Your task to perform on an android device: Go to settings Image 0: 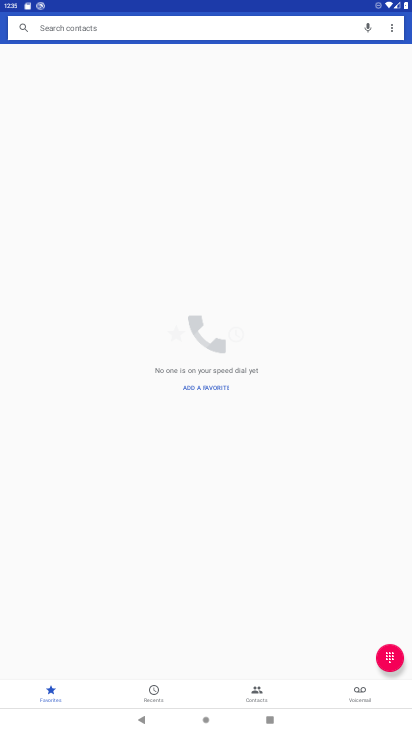
Step 0: press home button
Your task to perform on an android device: Go to settings Image 1: 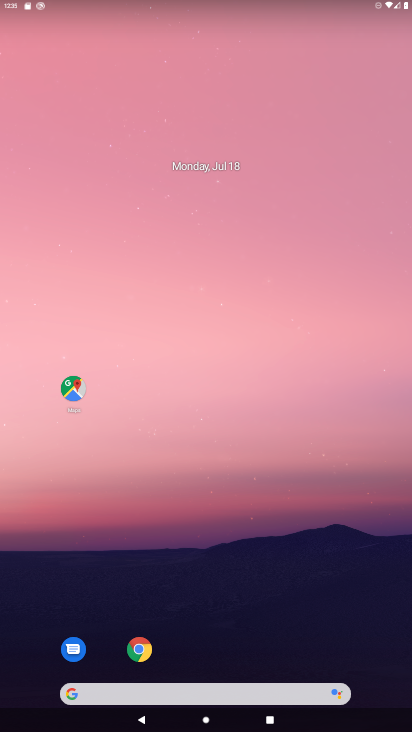
Step 1: drag from (206, 671) to (251, 346)
Your task to perform on an android device: Go to settings Image 2: 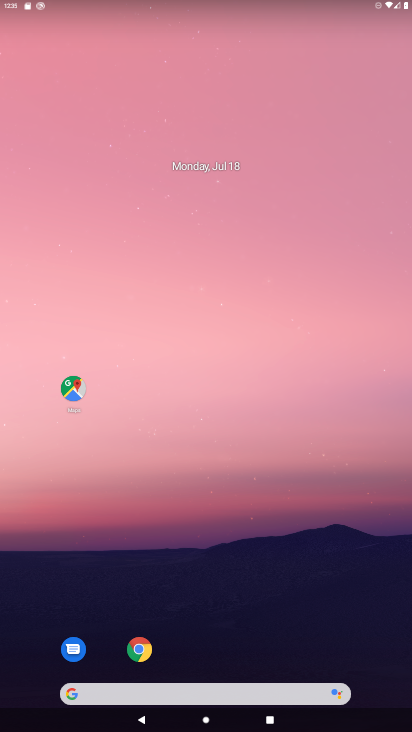
Step 2: drag from (190, 660) to (369, 80)
Your task to perform on an android device: Go to settings Image 3: 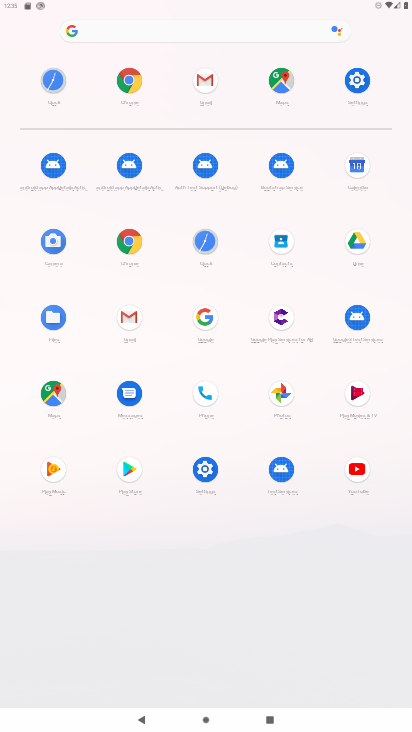
Step 3: click (348, 80)
Your task to perform on an android device: Go to settings Image 4: 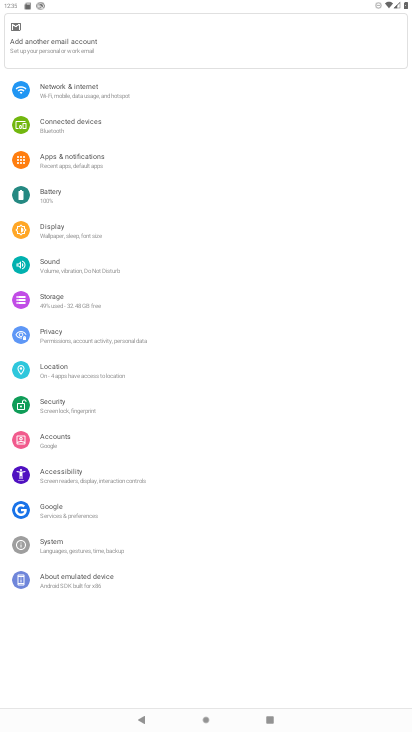
Step 4: task complete